Your task to perform on an android device: Go to Amazon Image 0: 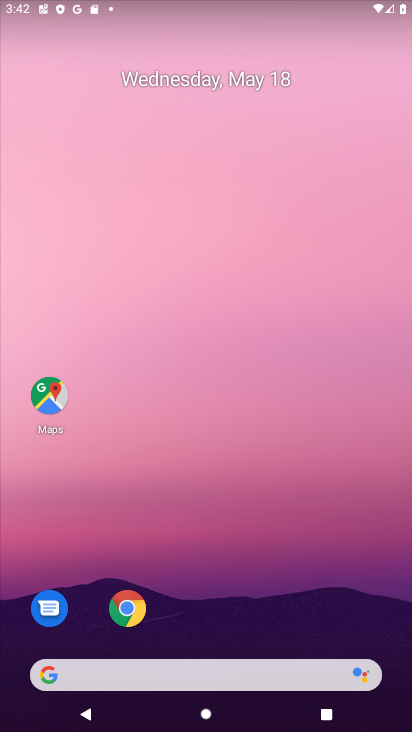
Step 0: click (132, 615)
Your task to perform on an android device: Go to Amazon Image 1: 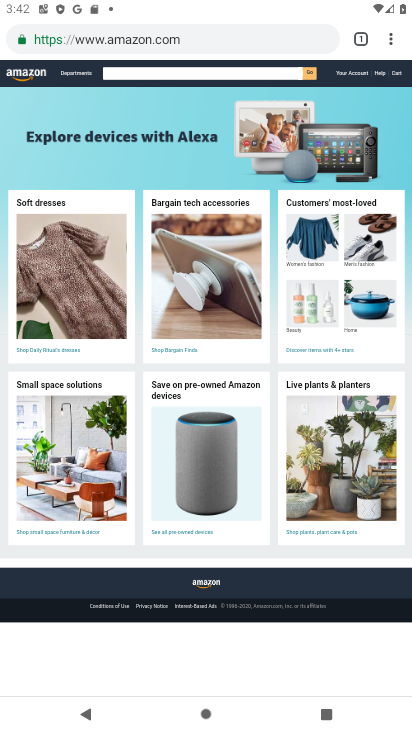
Step 1: task complete